Your task to perform on an android device: What's the weather today? Image 0: 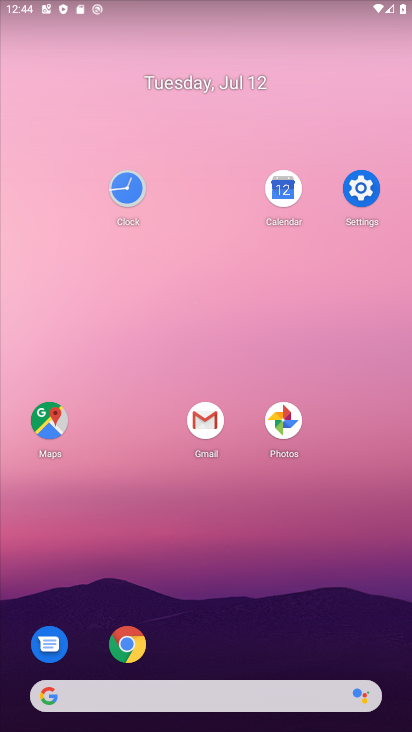
Step 0: click (127, 640)
Your task to perform on an android device: What's the weather today? Image 1: 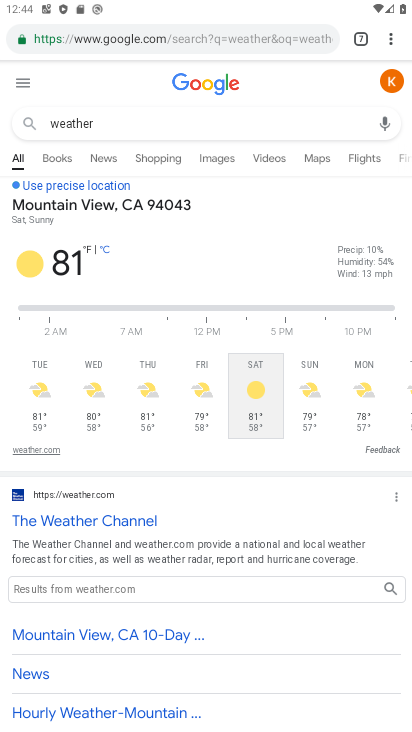
Step 1: click (48, 387)
Your task to perform on an android device: What's the weather today? Image 2: 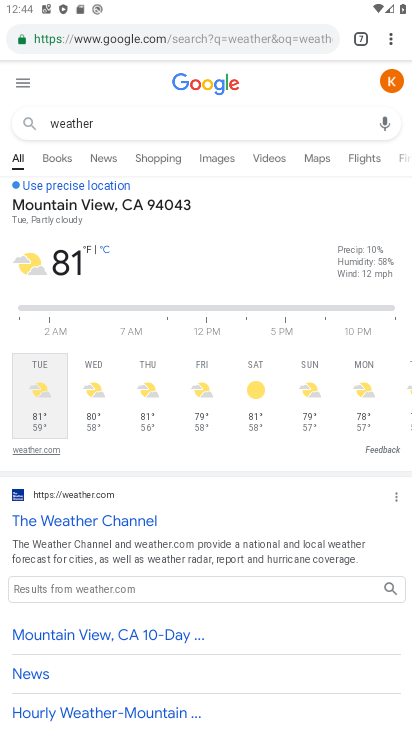
Step 2: task complete